Your task to perform on an android device: What's the weather going to be tomorrow? Image 0: 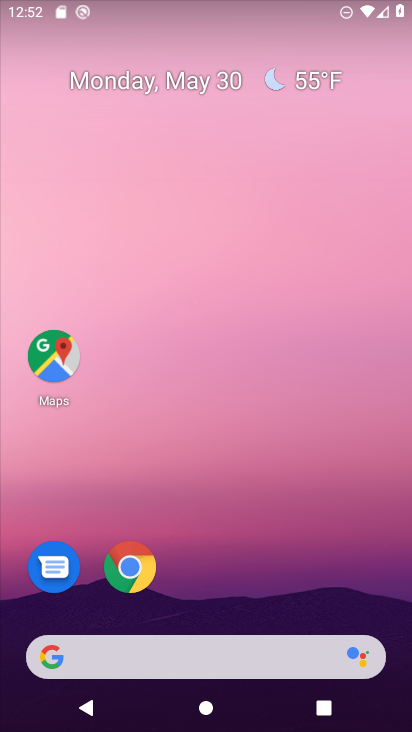
Step 0: press home button
Your task to perform on an android device: What's the weather going to be tomorrow? Image 1: 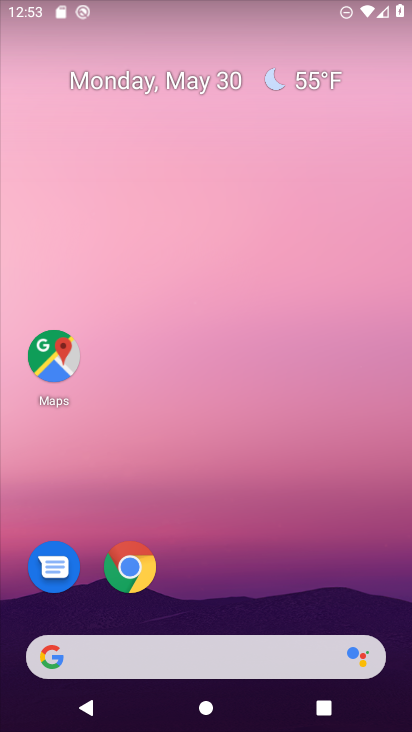
Step 1: click (324, 80)
Your task to perform on an android device: What's the weather going to be tomorrow? Image 2: 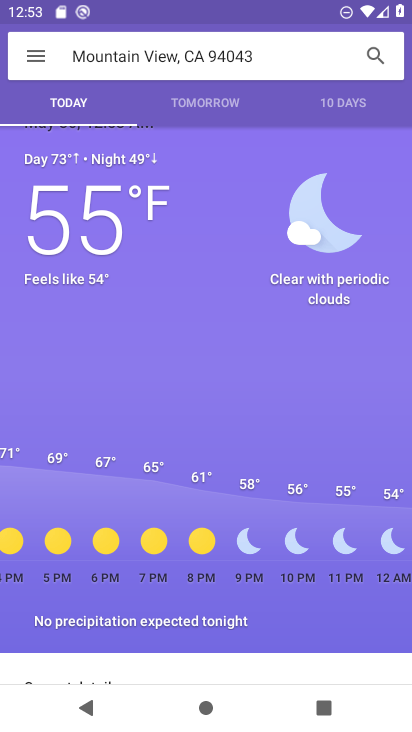
Step 2: click (199, 102)
Your task to perform on an android device: What's the weather going to be tomorrow? Image 3: 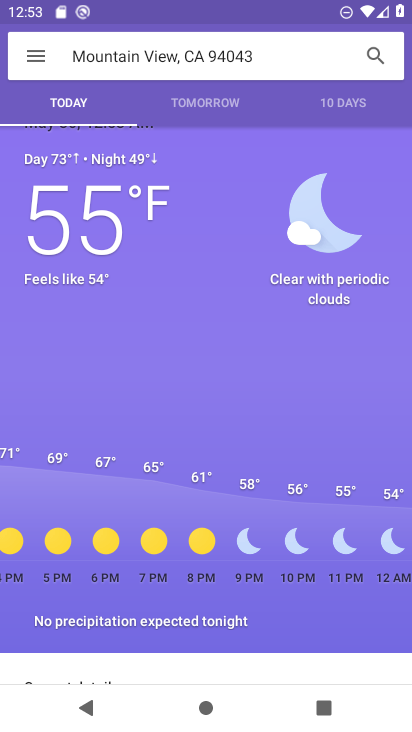
Step 3: task complete